Your task to perform on an android device: show emergency info Image 0: 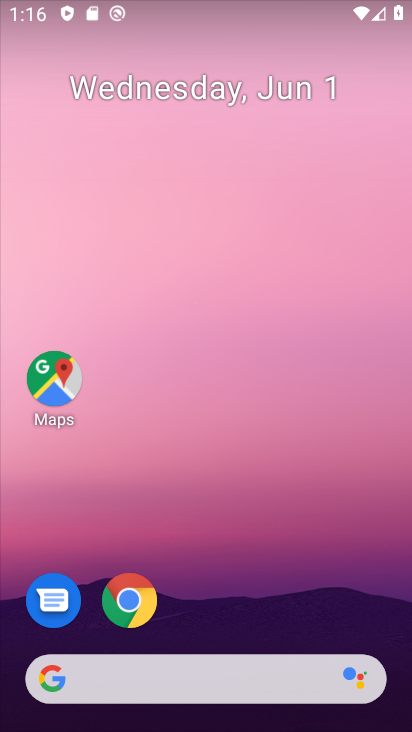
Step 0: drag from (217, 658) to (309, 173)
Your task to perform on an android device: show emergency info Image 1: 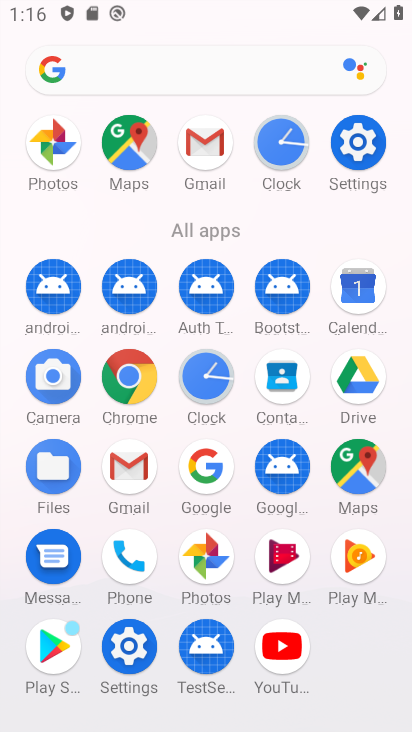
Step 1: drag from (266, 554) to (328, 314)
Your task to perform on an android device: show emergency info Image 2: 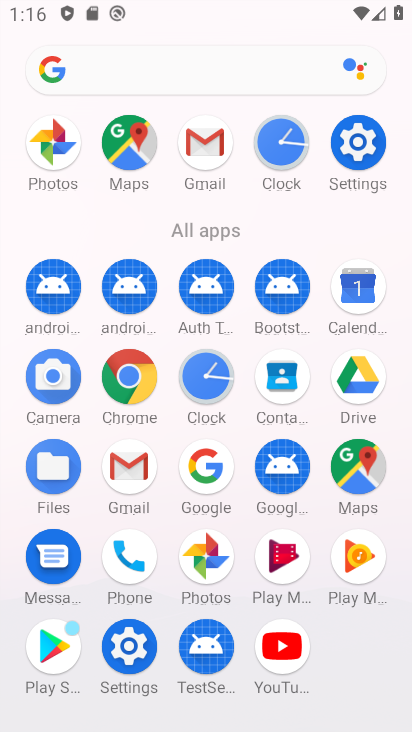
Step 2: click (121, 665)
Your task to perform on an android device: show emergency info Image 3: 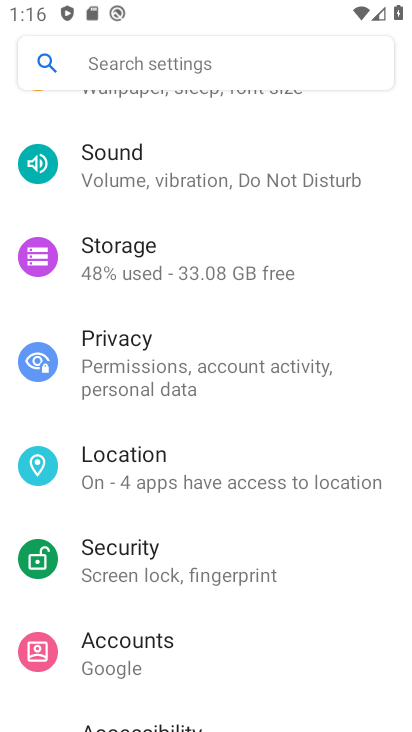
Step 3: drag from (144, 705) to (330, 168)
Your task to perform on an android device: show emergency info Image 4: 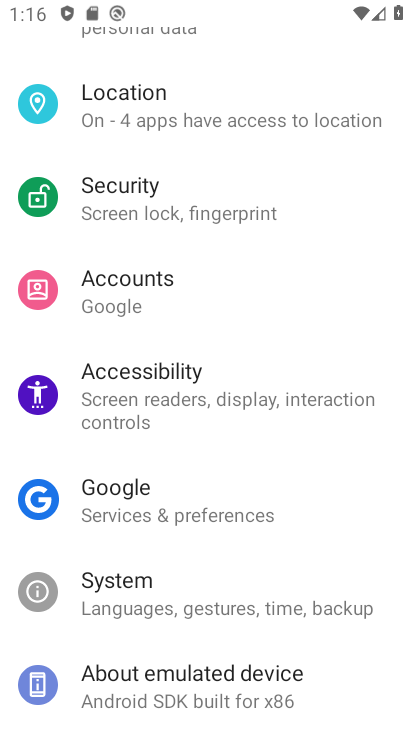
Step 4: click (280, 661)
Your task to perform on an android device: show emergency info Image 5: 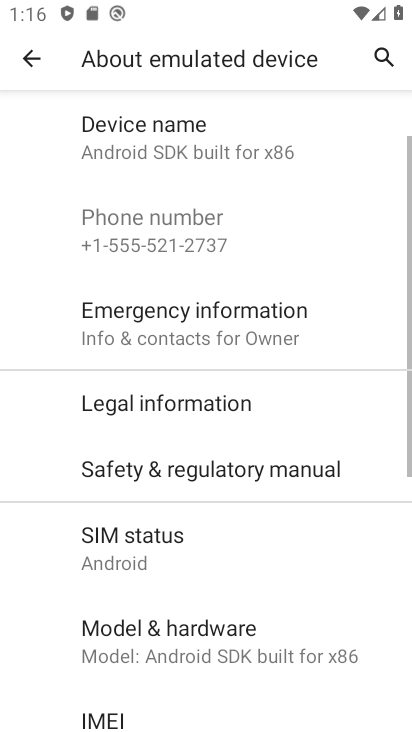
Step 5: click (293, 330)
Your task to perform on an android device: show emergency info Image 6: 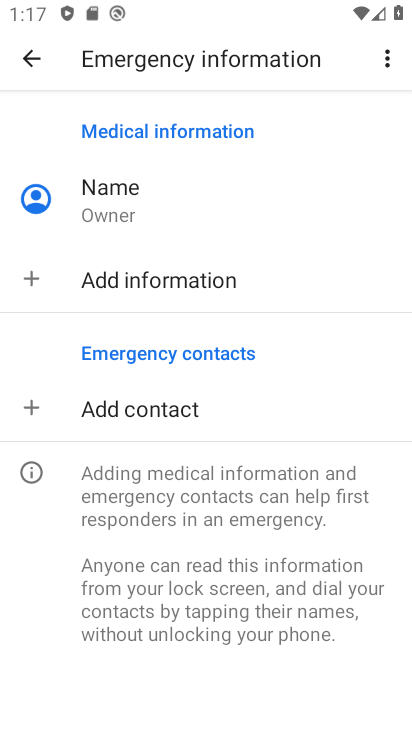
Step 6: task complete